Your task to perform on an android device: When is my next appointment? Image 0: 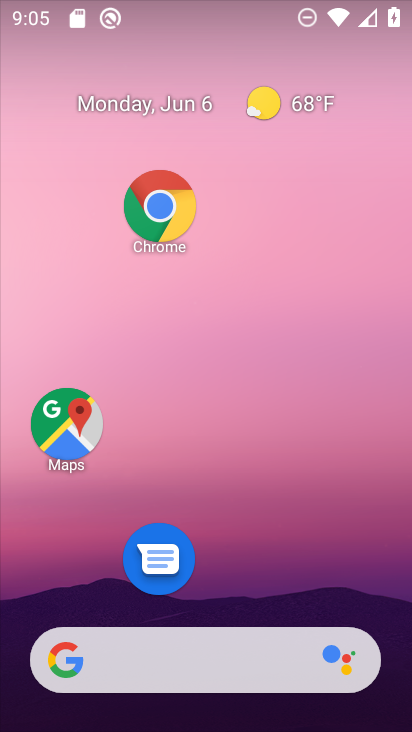
Step 0: drag from (283, 660) to (262, 47)
Your task to perform on an android device: When is my next appointment? Image 1: 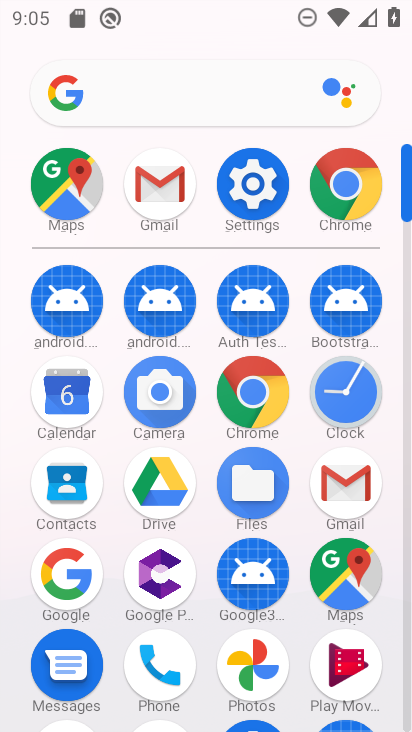
Step 1: click (65, 404)
Your task to perform on an android device: When is my next appointment? Image 2: 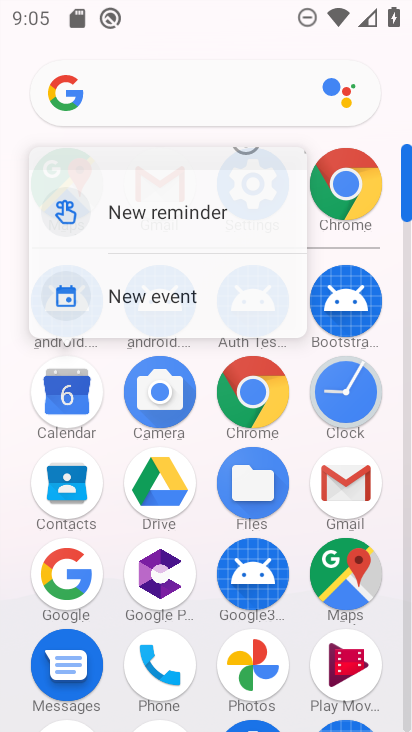
Step 2: click (67, 403)
Your task to perform on an android device: When is my next appointment? Image 3: 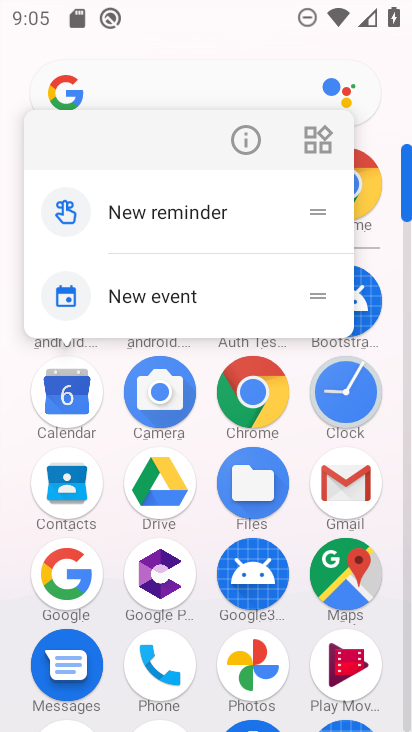
Step 3: click (67, 403)
Your task to perform on an android device: When is my next appointment? Image 4: 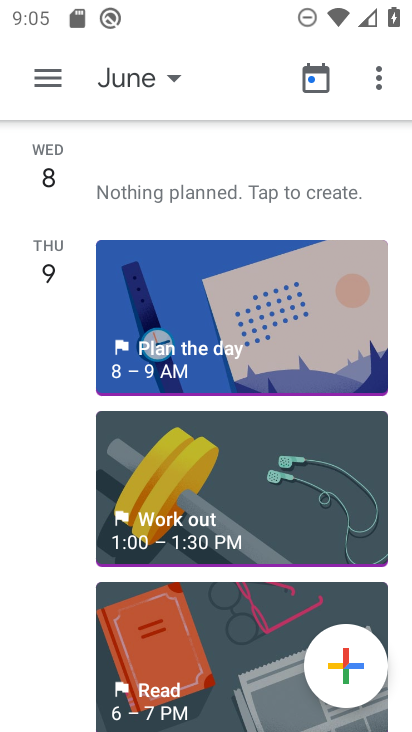
Step 4: click (172, 84)
Your task to perform on an android device: When is my next appointment? Image 5: 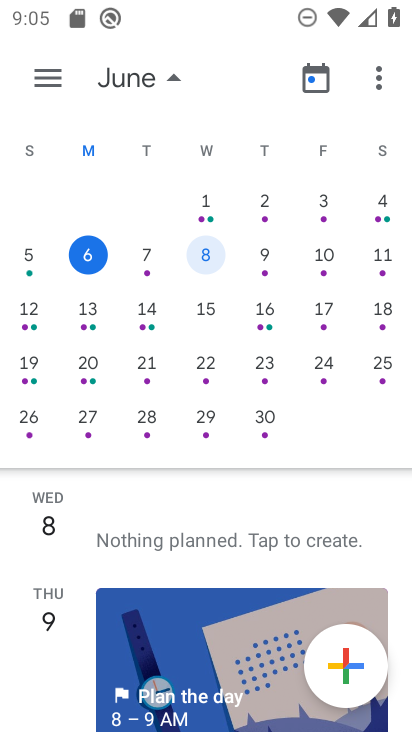
Step 5: task complete